Your task to perform on an android device: What's the latest video from GameSpot Reviews? Image 0: 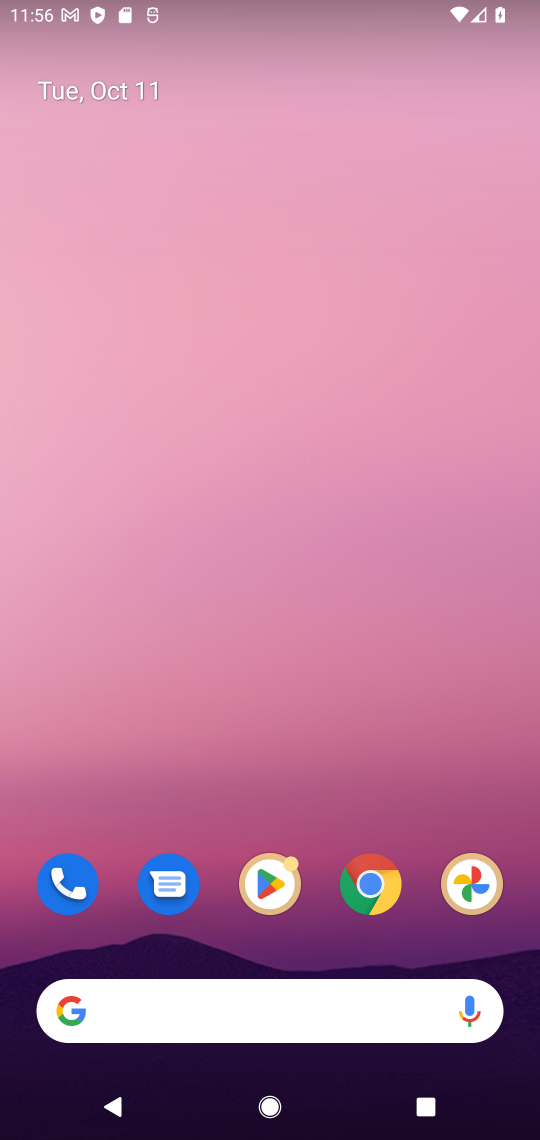
Step 0: click (220, 1016)
Your task to perform on an android device: What's the latest video from GameSpot Reviews? Image 1: 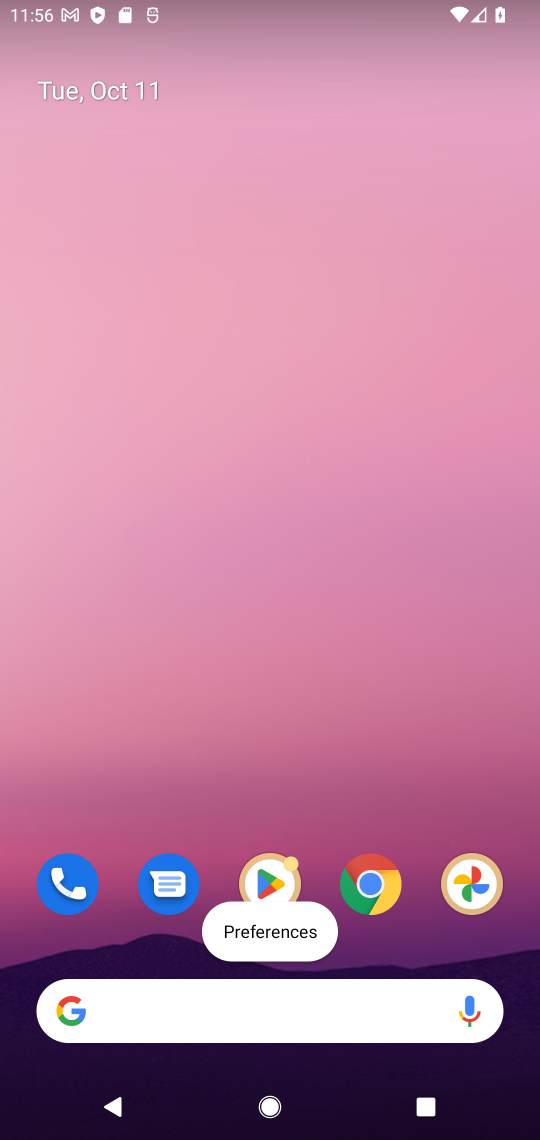
Step 1: click (140, 1006)
Your task to perform on an android device: What's the latest video from GameSpot Reviews? Image 2: 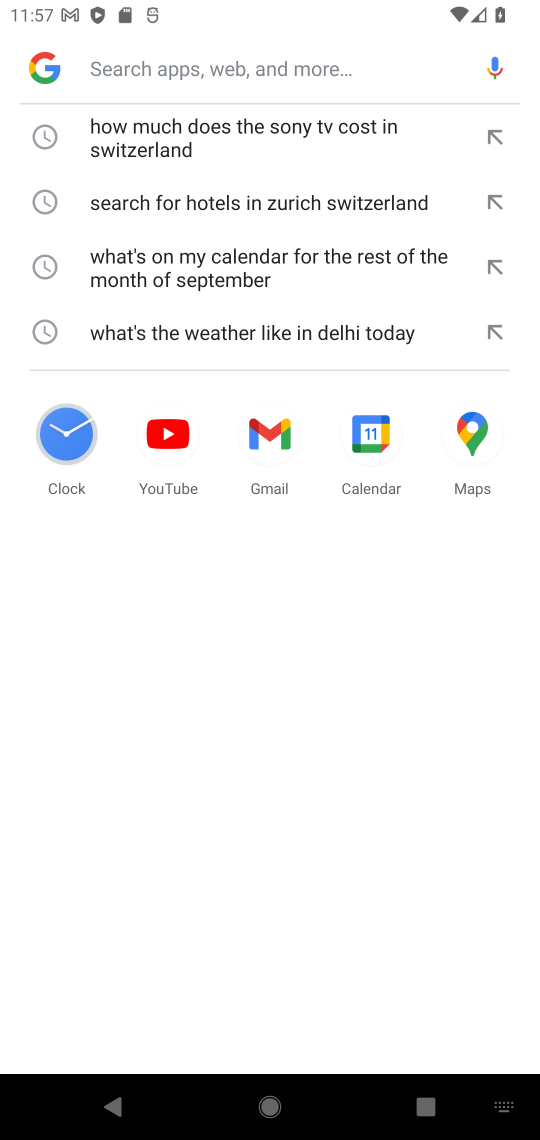
Step 2: type "What's the latest video from GameSpot Reviews?"
Your task to perform on an android device: What's the latest video from GameSpot Reviews? Image 3: 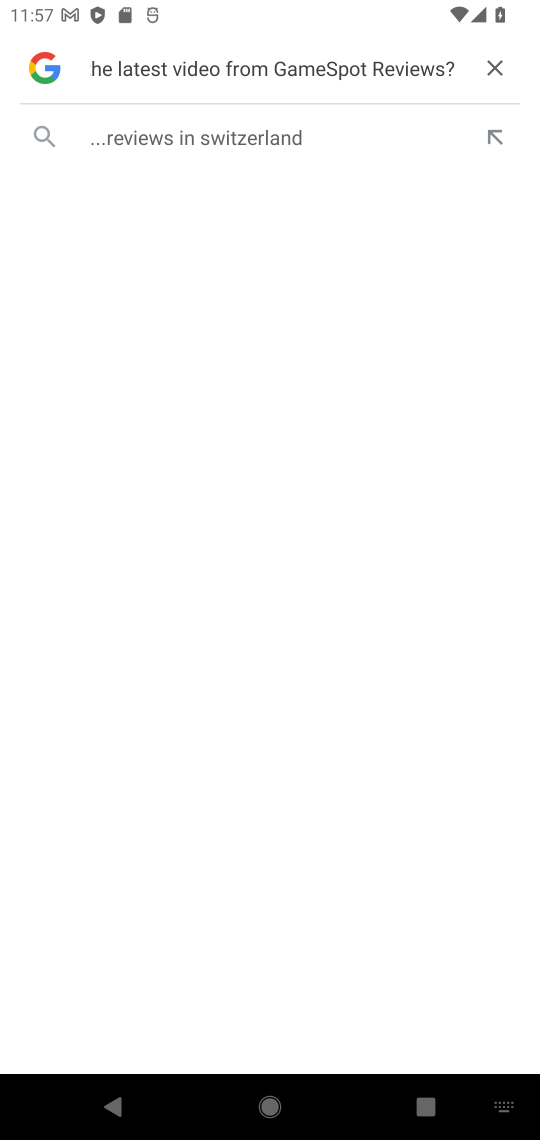
Step 3: click (153, 132)
Your task to perform on an android device: What's the latest video from GameSpot Reviews? Image 4: 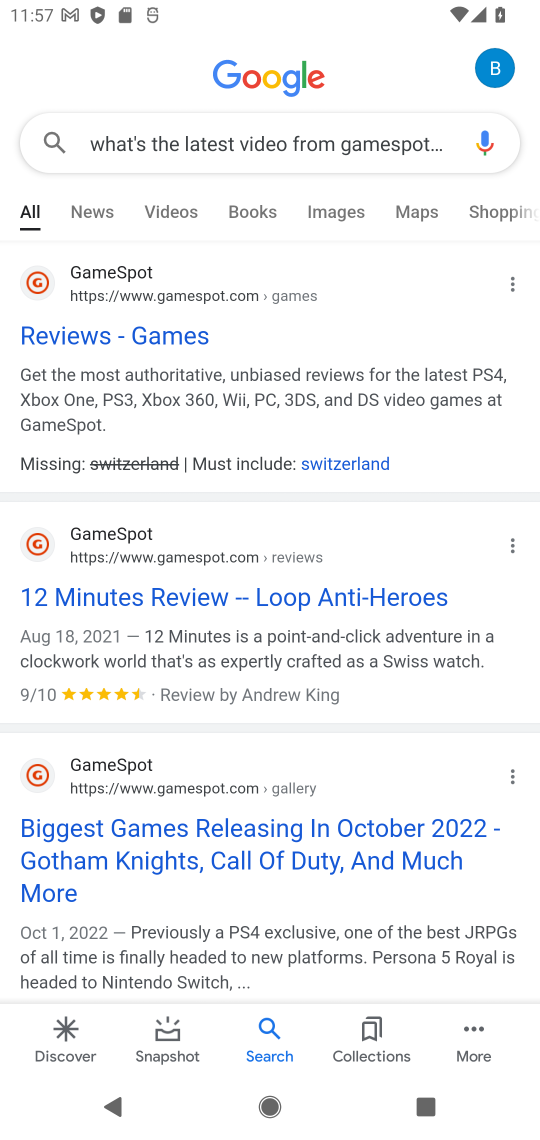
Step 4: click (157, 338)
Your task to perform on an android device: What's the latest video from GameSpot Reviews? Image 5: 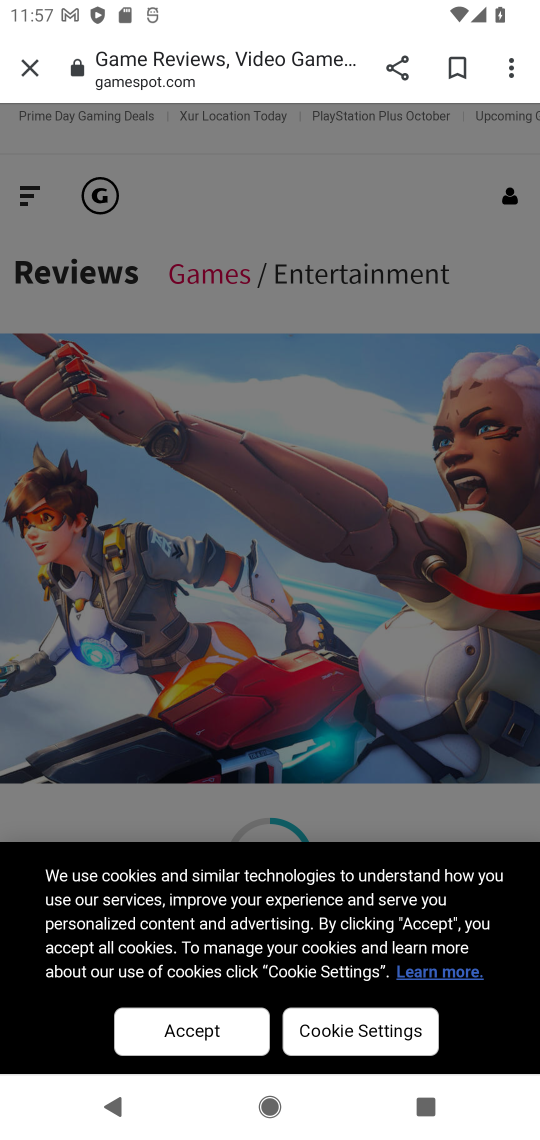
Step 5: task complete